Your task to perform on an android device: Show me popular games on the Play Store Image 0: 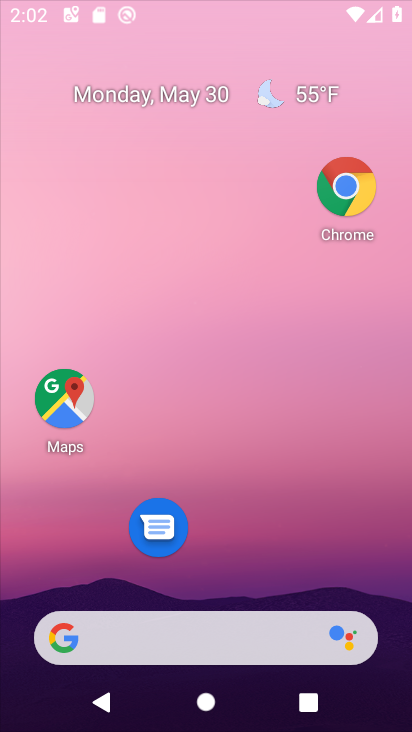
Step 0: click (250, 245)
Your task to perform on an android device: Show me popular games on the Play Store Image 1: 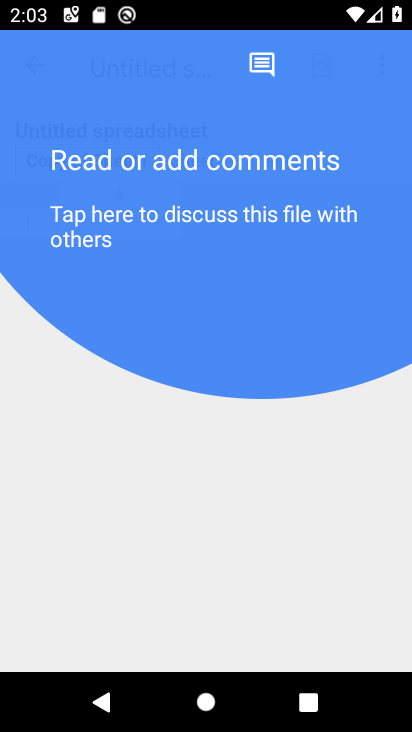
Step 1: press home button
Your task to perform on an android device: Show me popular games on the Play Store Image 2: 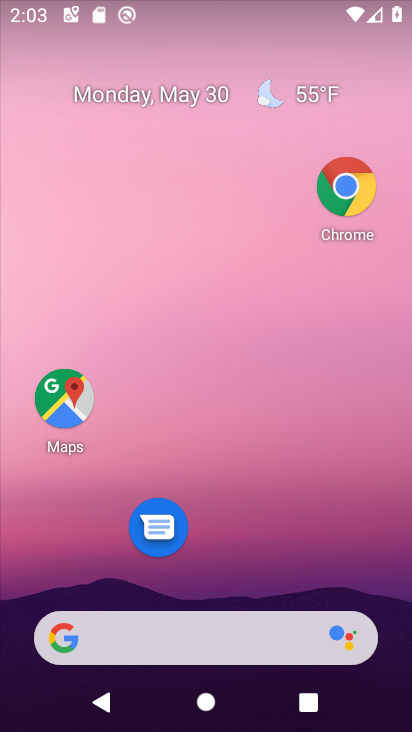
Step 2: drag from (186, 566) to (225, 67)
Your task to perform on an android device: Show me popular games on the Play Store Image 3: 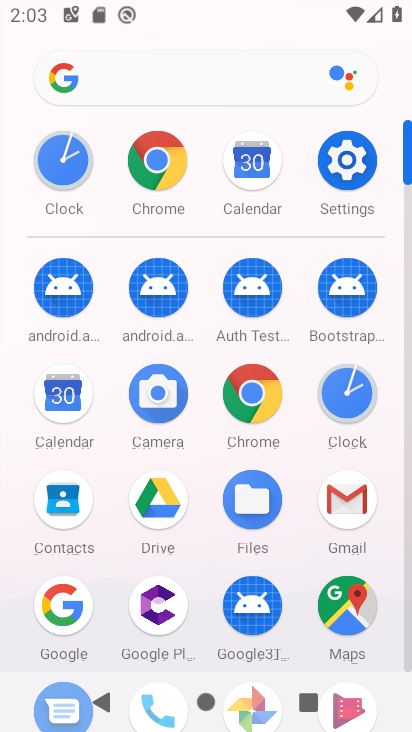
Step 3: drag from (212, 641) to (216, 310)
Your task to perform on an android device: Show me popular games on the Play Store Image 4: 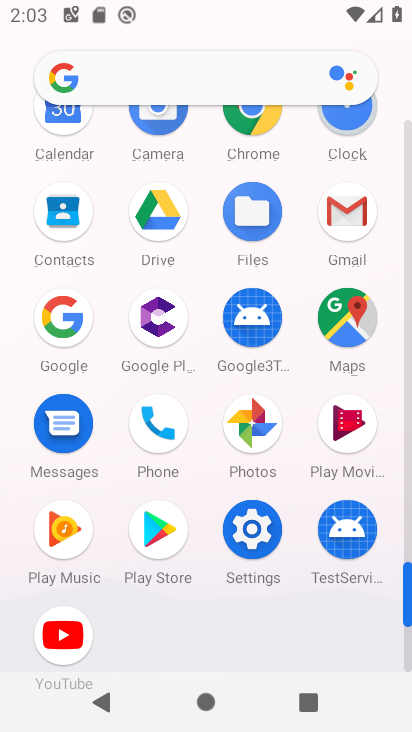
Step 4: click (175, 530)
Your task to perform on an android device: Show me popular games on the Play Store Image 5: 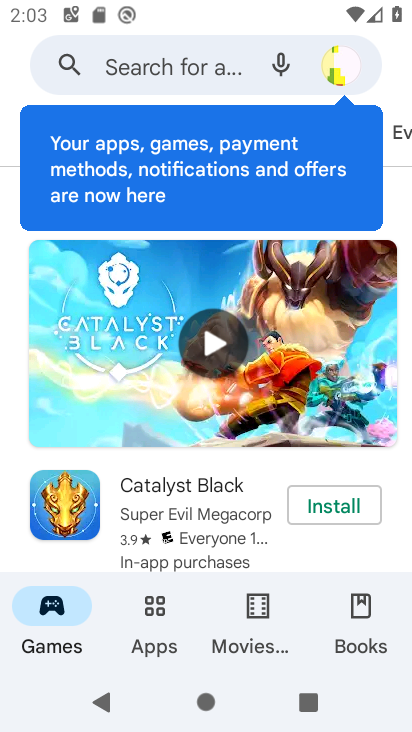
Step 5: drag from (243, 559) to (261, 214)
Your task to perform on an android device: Show me popular games on the Play Store Image 6: 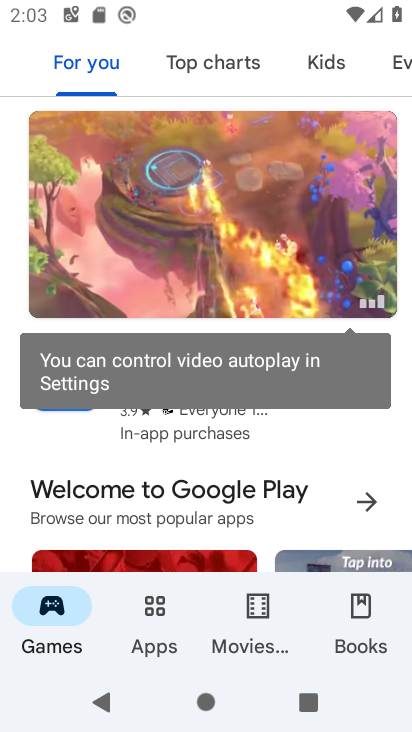
Step 6: drag from (248, 542) to (286, 64)
Your task to perform on an android device: Show me popular games on the Play Store Image 7: 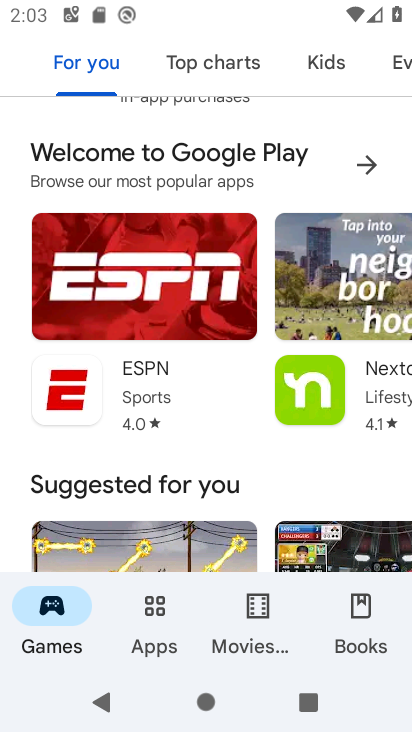
Step 7: drag from (228, 458) to (307, 75)
Your task to perform on an android device: Show me popular games on the Play Store Image 8: 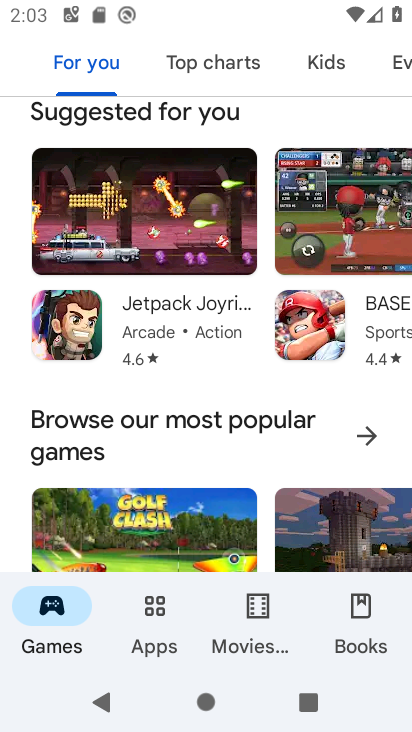
Step 8: drag from (234, 456) to (259, 305)
Your task to perform on an android device: Show me popular games on the Play Store Image 9: 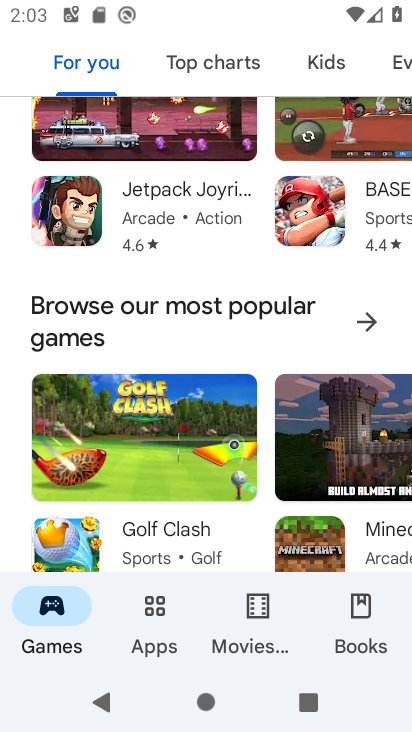
Step 9: click (361, 315)
Your task to perform on an android device: Show me popular games on the Play Store Image 10: 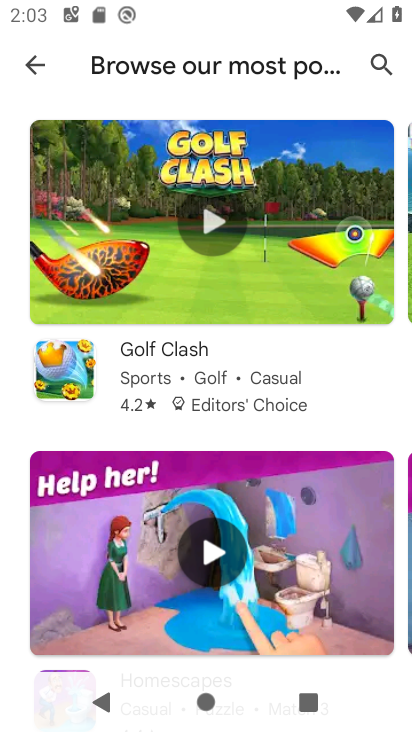
Step 10: task complete